Your task to perform on an android device: Search for Mexican restaurants on Maps Image 0: 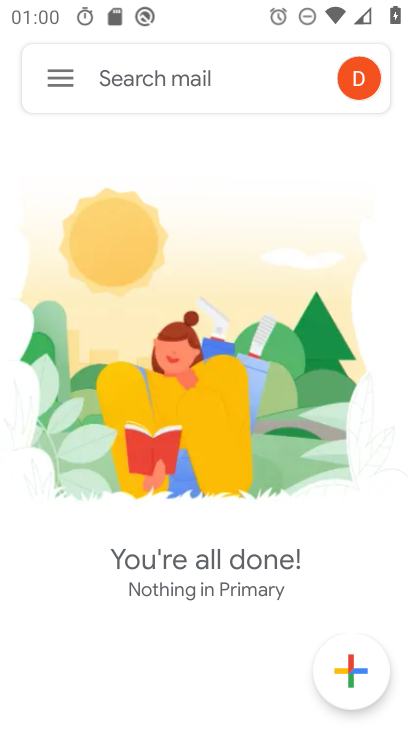
Step 0: press home button
Your task to perform on an android device: Search for Mexican restaurants on Maps Image 1: 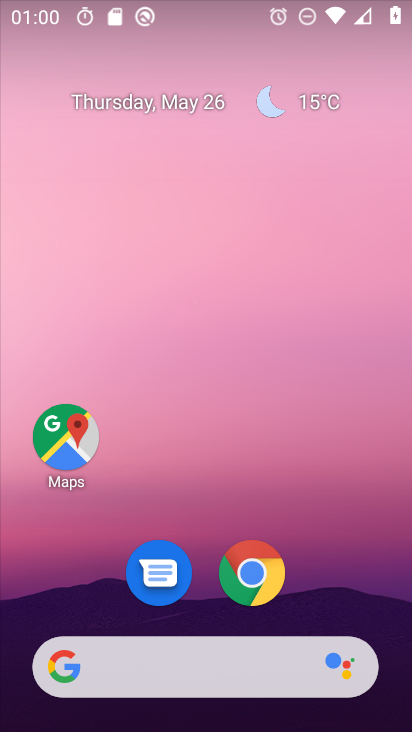
Step 1: click (62, 437)
Your task to perform on an android device: Search for Mexican restaurants on Maps Image 2: 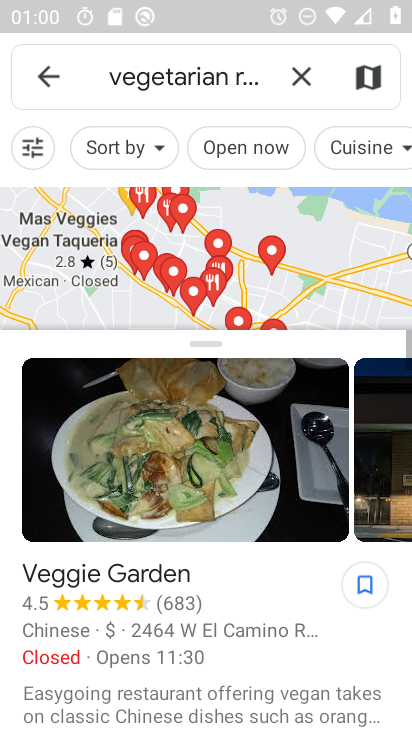
Step 2: click (290, 78)
Your task to perform on an android device: Search for Mexican restaurants on Maps Image 3: 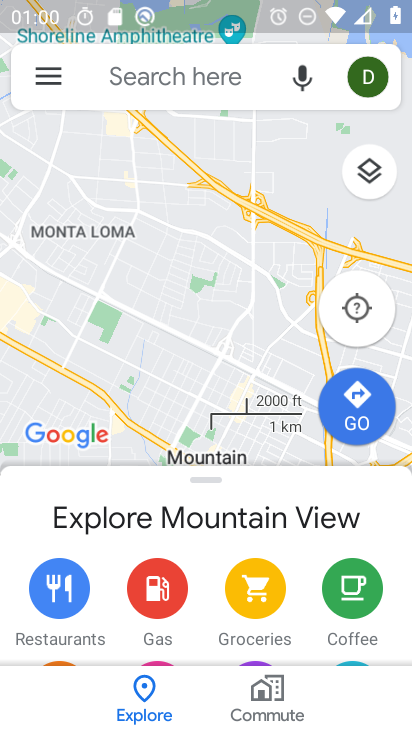
Step 3: click (140, 75)
Your task to perform on an android device: Search for Mexican restaurants on Maps Image 4: 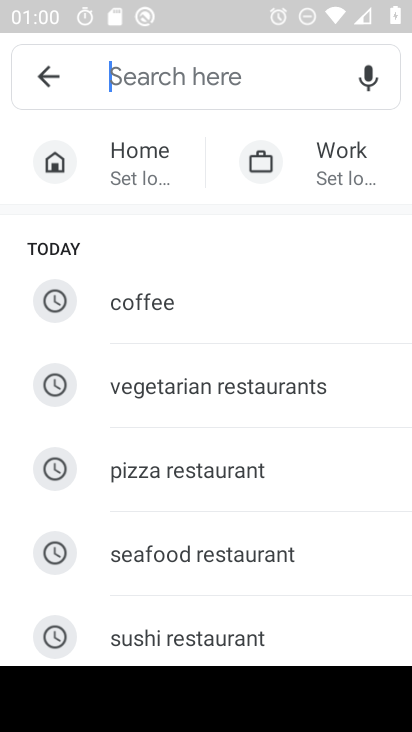
Step 4: type "mexican restaurants"
Your task to perform on an android device: Search for Mexican restaurants on Maps Image 5: 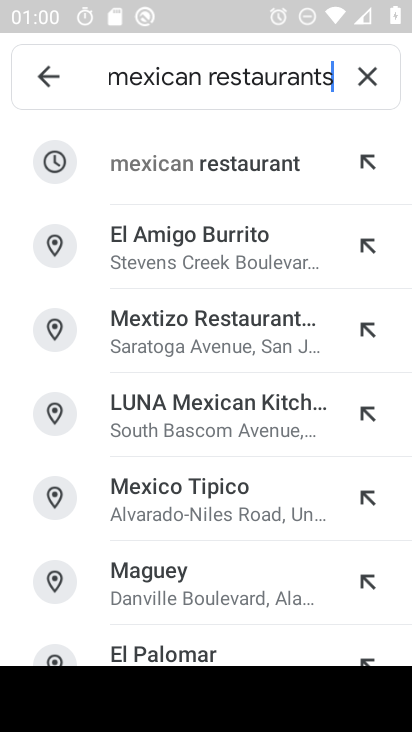
Step 5: click (220, 158)
Your task to perform on an android device: Search for Mexican restaurants on Maps Image 6: 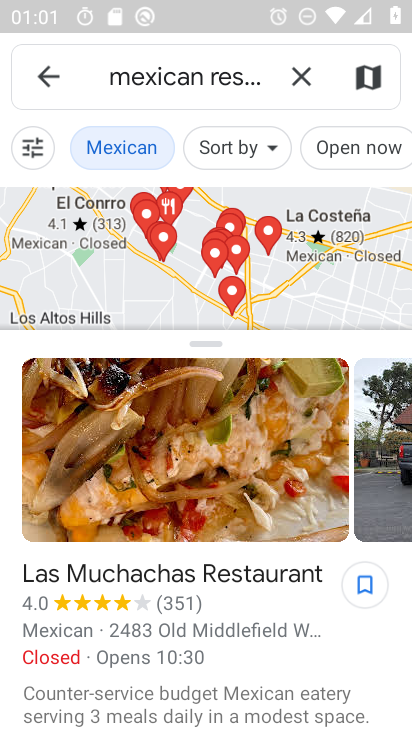
Step 6: task complete